Your task to perform on an android device: Open Reddit.com Image 0: 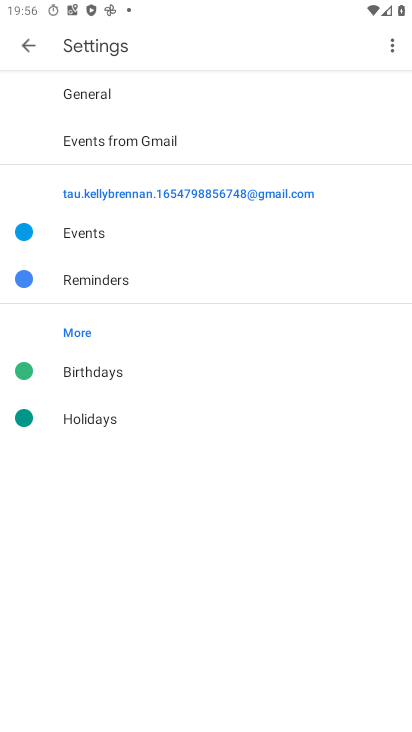
Step 0: press home button
Your task to perform on an android device: Open Reddit.com Image 1: 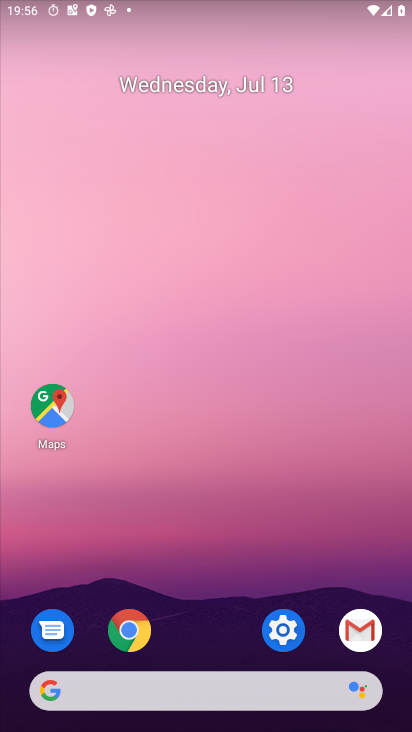
Step 1: click (141, 624)
Your task to perform on an android device: Open Reddit.com Image 2: 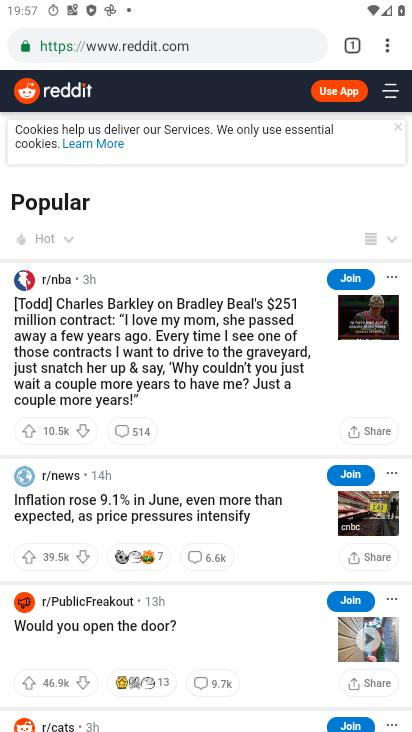
Step 2: task complete